Your task to perform on an android device: Open wifi settings Image 0: 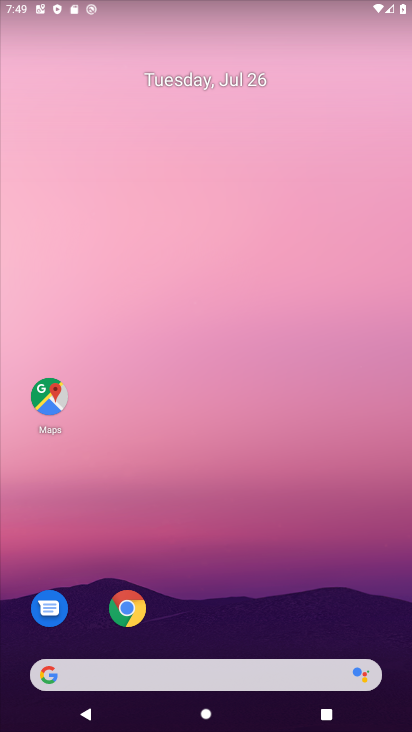
Step 0: drag from (21, 706) to (324, 31)
Your task to perform on an android device: Open wifi settings Image 1: 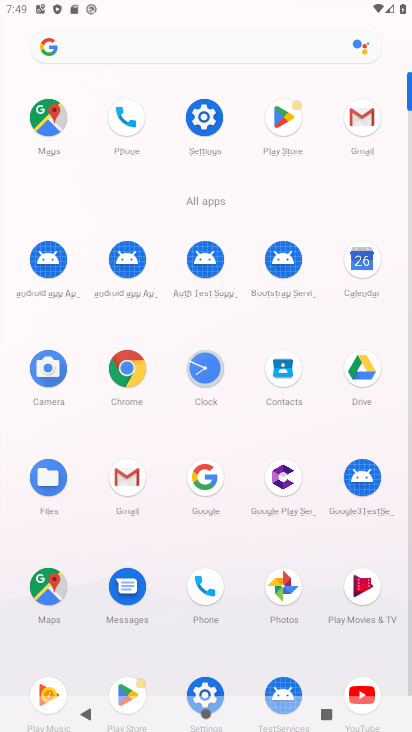
Step 1: click (208, 689)
Your task to perform on an android device: Open wifi settings Image 2: 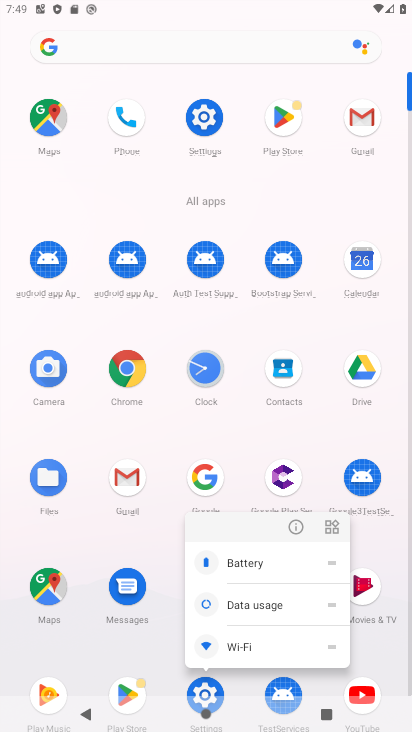
Step 2: click (198, 682)
Your task to perform on an android device: Open wifi settings Image 3: 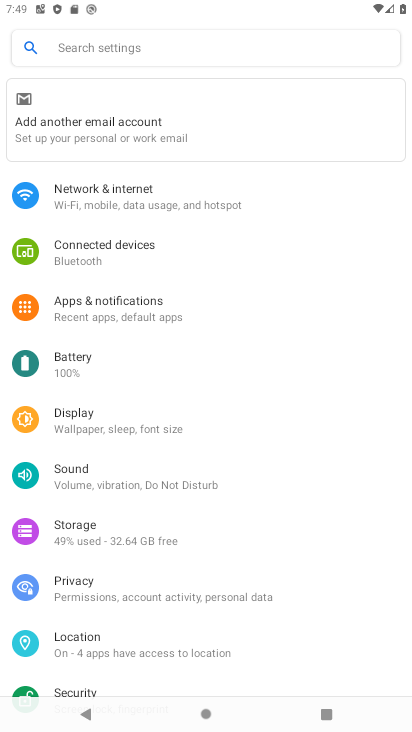
Step 3: click (109, 186)
Your task to perform on an android device: Open wifi settings Image 4: 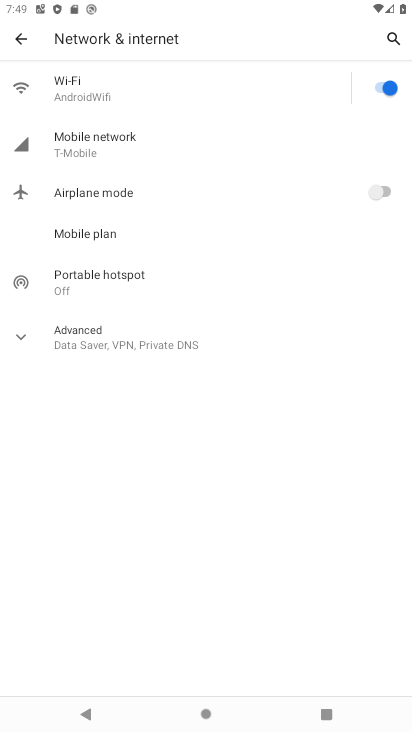
Step 4: task complete